Your task to perform on an android device: read, delete, or share a saved page in the chrome app Image 0: 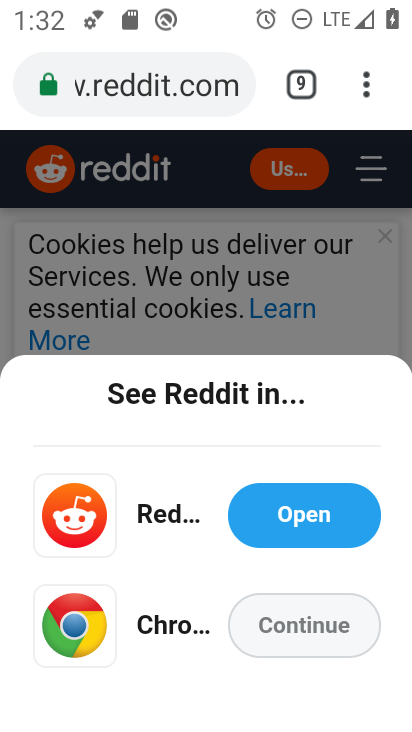
Step 0: click (366, 95)
Your task to perform on an android device: read, delete, or share a saved page in the chrome app Image 1: 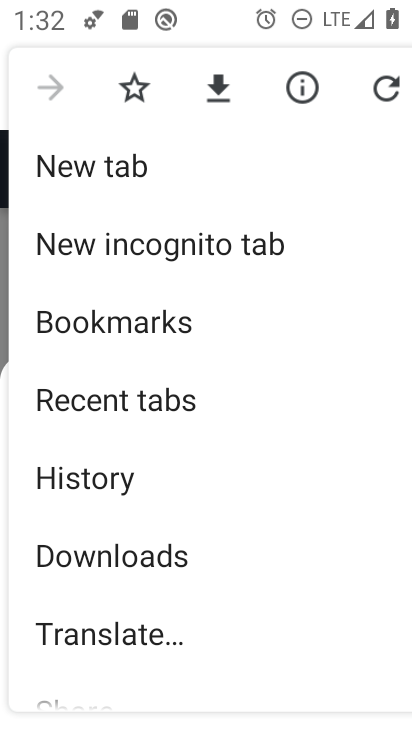
Step 1: click (143, 558)
Your task to perform on an android device: read, delete, or share a saved page in the chrome app Image 2: 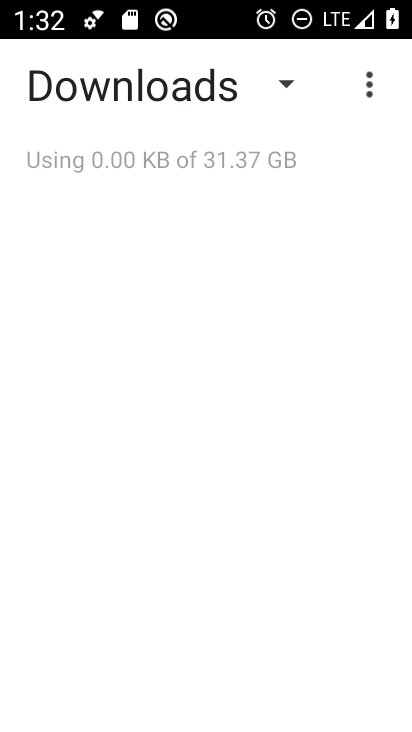
Step 2: click (283, 83)
Your task to perform on an android device: read, delete, or share a saved page in the chrome app Image 3: 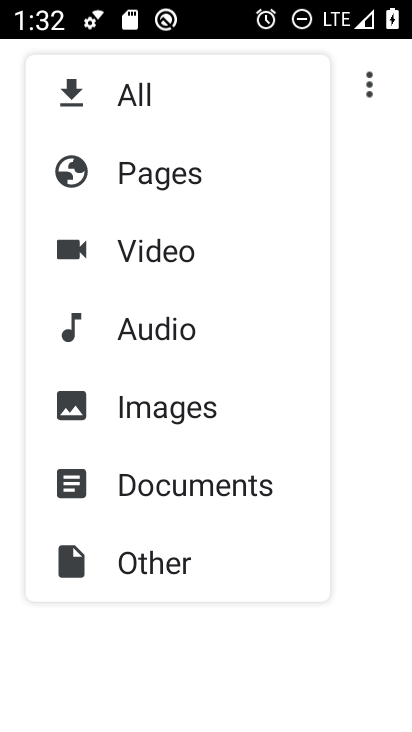
Step 3: click (203, 159)
Your task to perform on an android device: read, delete, or share a saved page in the chrome app Image 4: 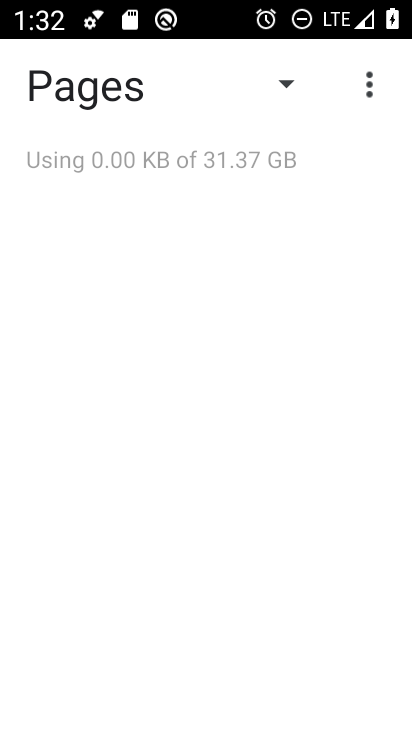
Step 4: task complete